Your task to perform on an android device: allow notifications from all sites in the chrome app Image 0: 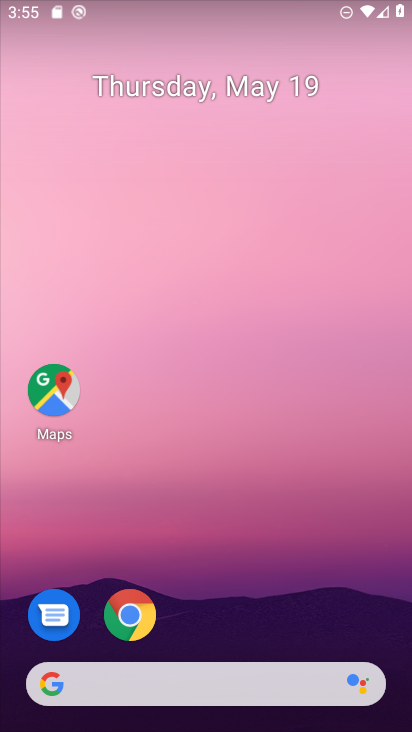
Step 0: drag from (269, 627) to (197, 182)
Your task to perform on an android device: allow notifications from all sites in the chrome app Image 1: 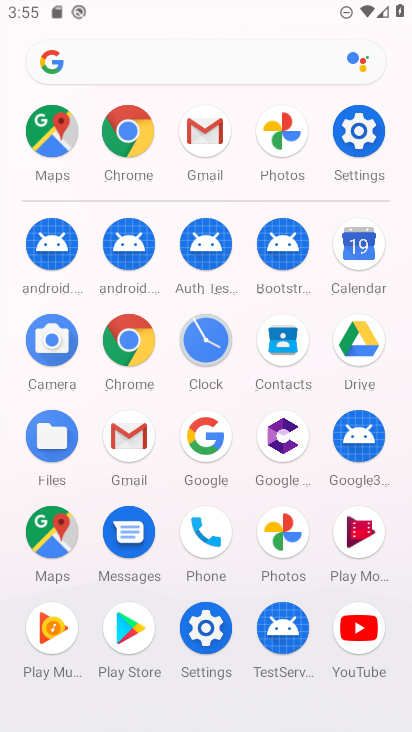
Step 1: click (124, 140)
Your task to perform on an android device: allow notifications from all sites in the chrome app Image 2: 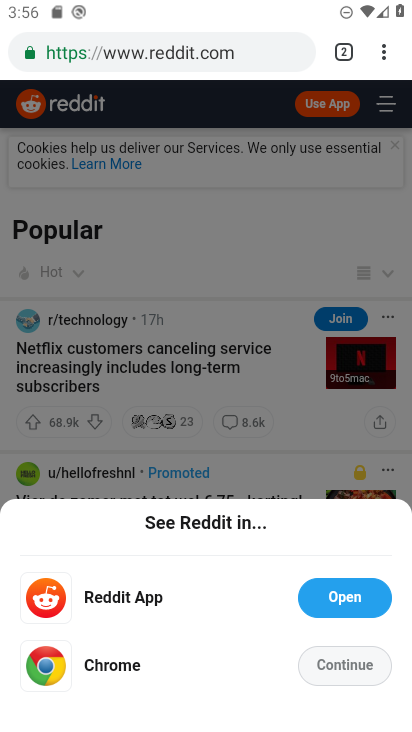
Step 2: click (393, 57)
Your task to perform on an android device: allow notifications from all sites in the chrome app Image 3: 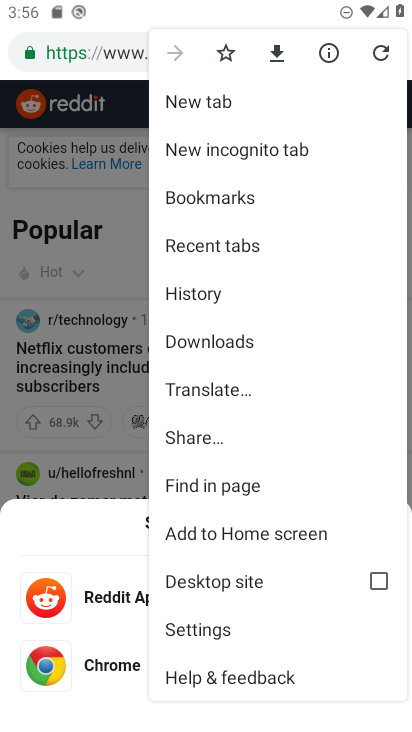
Step 3: click (313, 643)
Your task to perform on an android device: allow notifications from all sites in the chrome app Image 4: 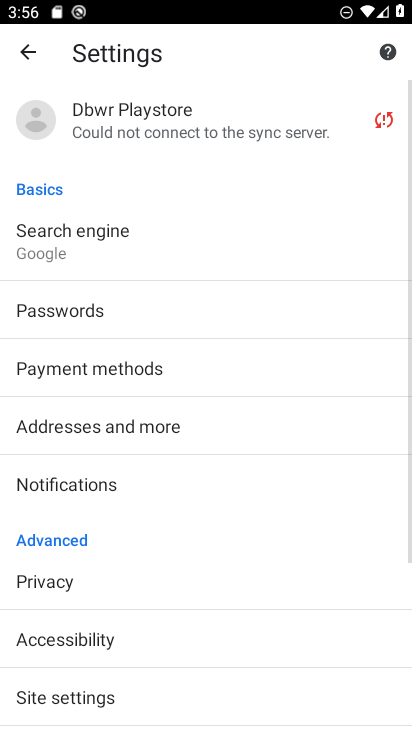
Step 4: click (246, 695)
Your task to perform on an android device: allow notifications from all sites in the chrome app Image 5: 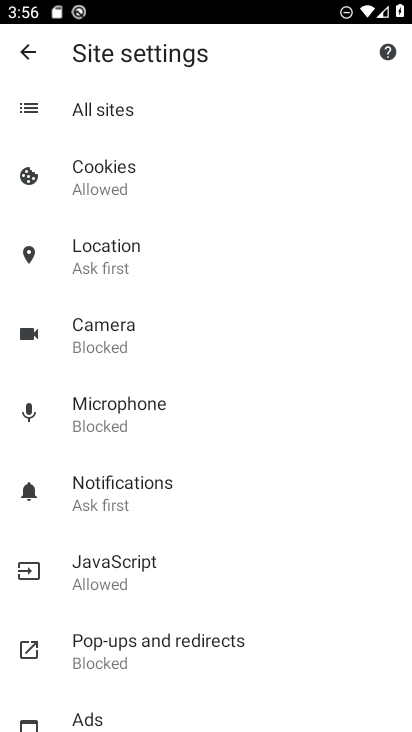
Step 5: click (223, 507)
Your task to perform on an android device: allow notifications from all sites in the chrome app Image 6: 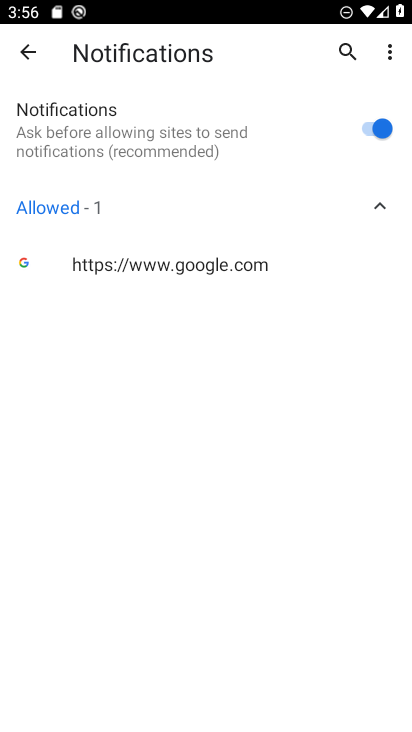
Step 6: task complete